Your task to perform on an android device: Add "alienware aurora" to the cart on target, then select checkout. Image 0: 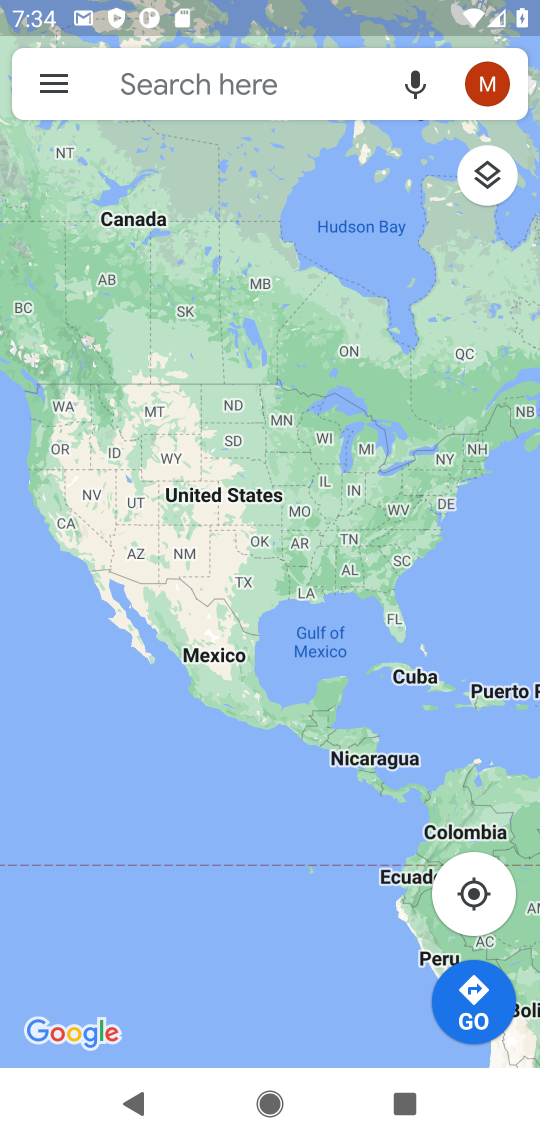
Step 0: press home button
Your task to perform on an android device: Add "alienware aurora" to the cart on target, then select checkout. Image 1: 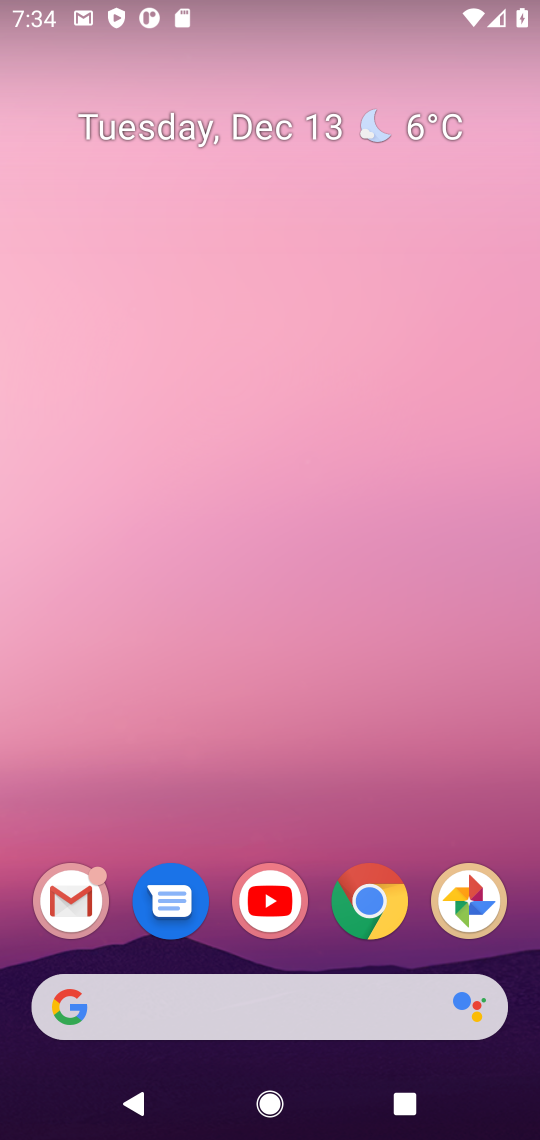
Step 1: click (366, 886)
Your task to perform on an android device: Add "alienware aurora" to the cart on target, then select checkout. Image 2: 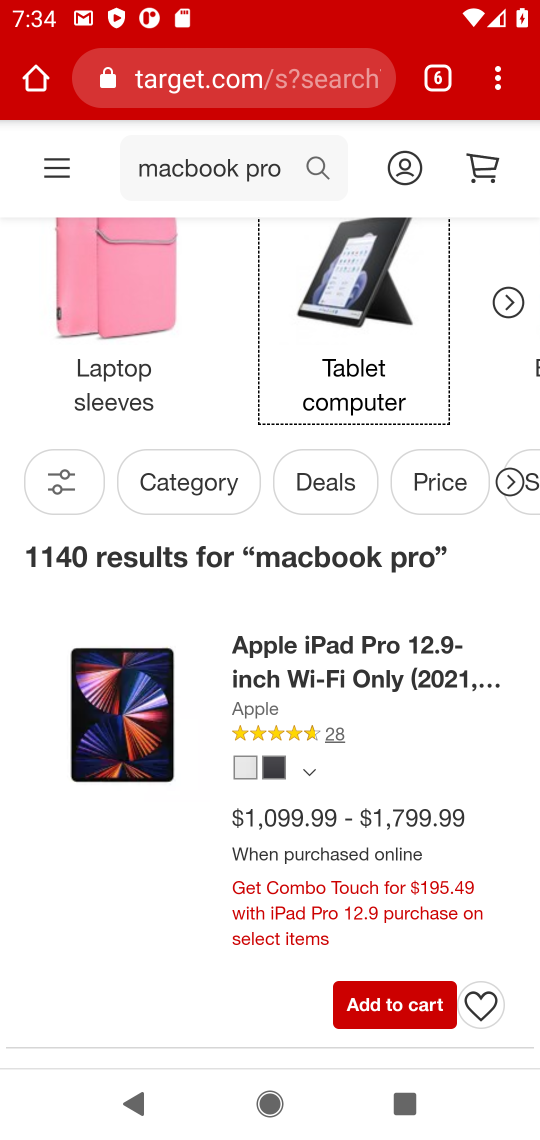
Step 2: click (187, 163)
Your task to perform on an android device: Add "alienware aurora" to the cart on target, then select checkout. Image 3: 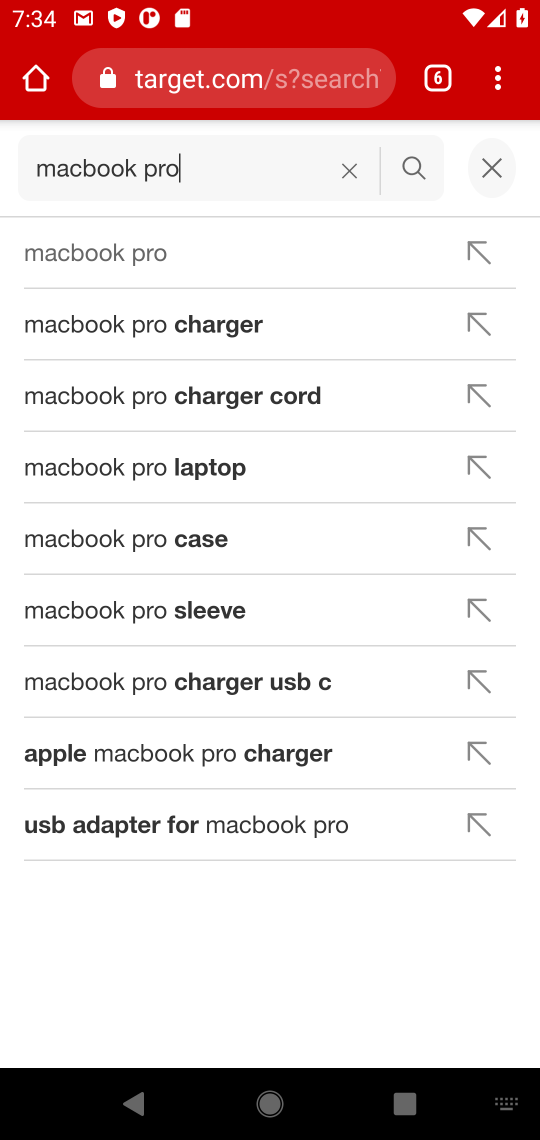
Step 3: click (355, 172)
Your task to perform on an android device: Add "alienware aurora" to the cart on target, then select checkout. Image 4: 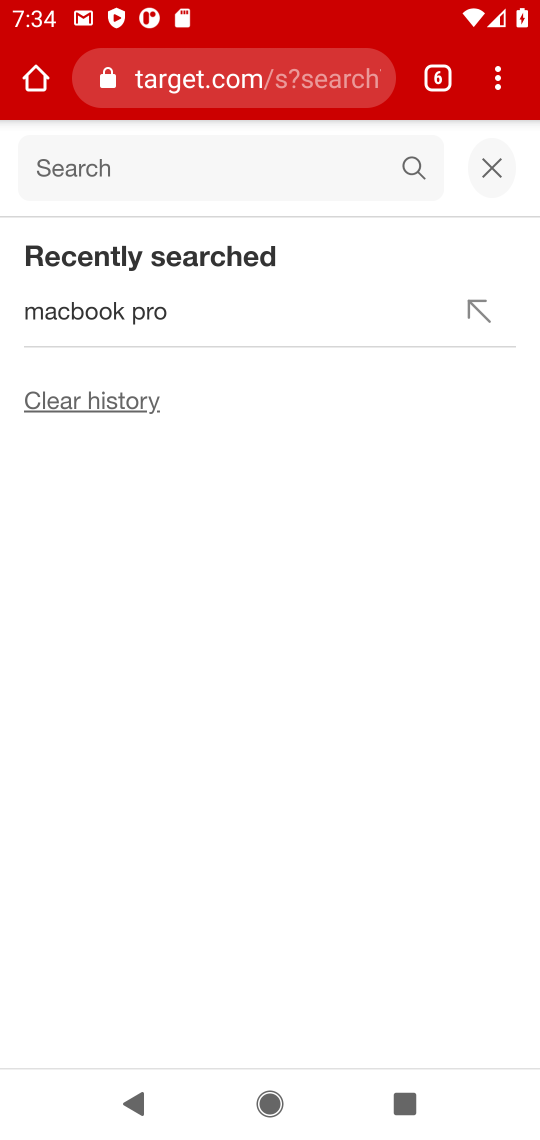
Step 4: click (158, 160)
Your task to perform on an android device: Add "alienware aurora" to the cart on target, then select checkout. Image 5: 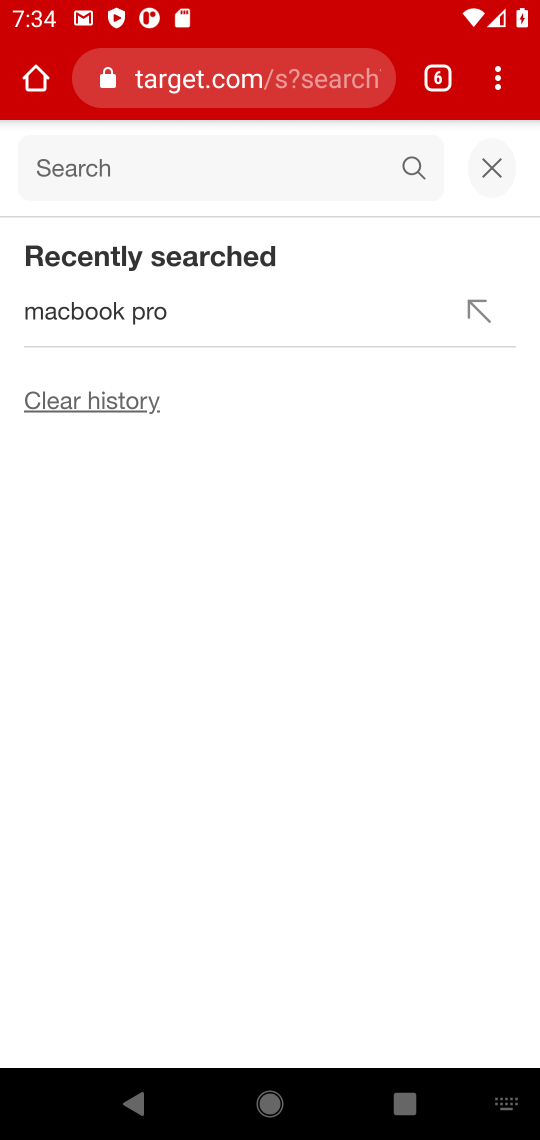
Step 5: type "alienware aurora"
Your task to perform on an android device: Add "alienware aurora" to the cart on target, then select checkout. Image 6: 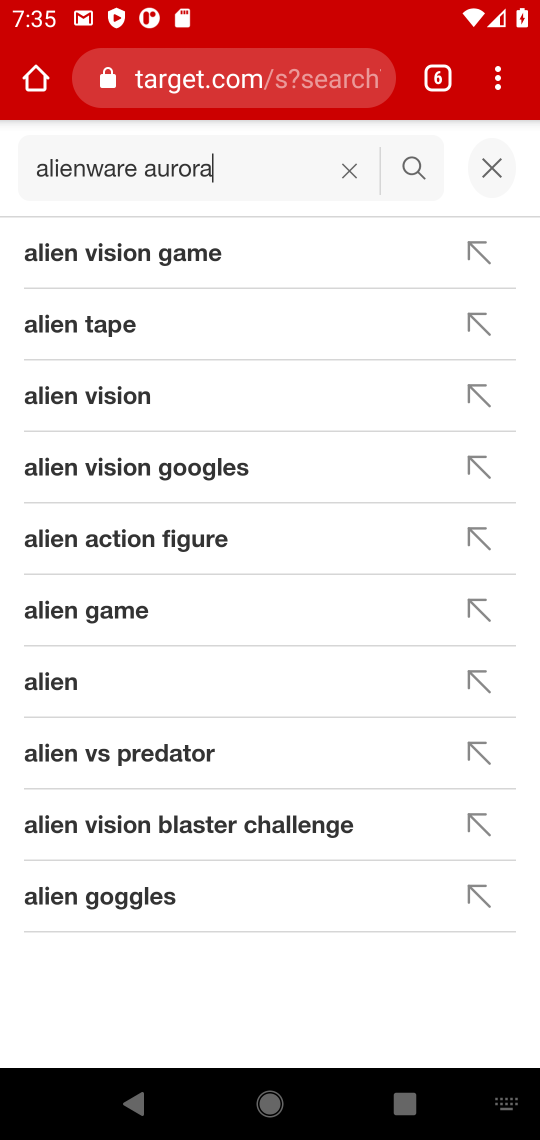
Step 6: click (417, 169)
Your task to perform on an android device: Add "alienware aurora" to the cart on target, then select checkout. Image 7: 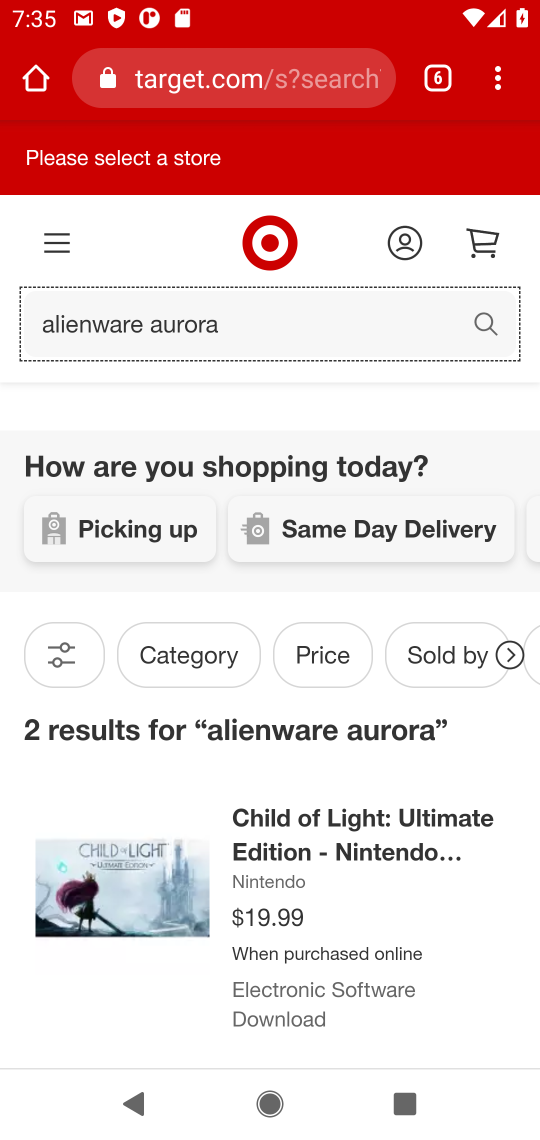
Step 7: task complete